Your task to perform on an android device: empty trash in the gmail app Image 0: 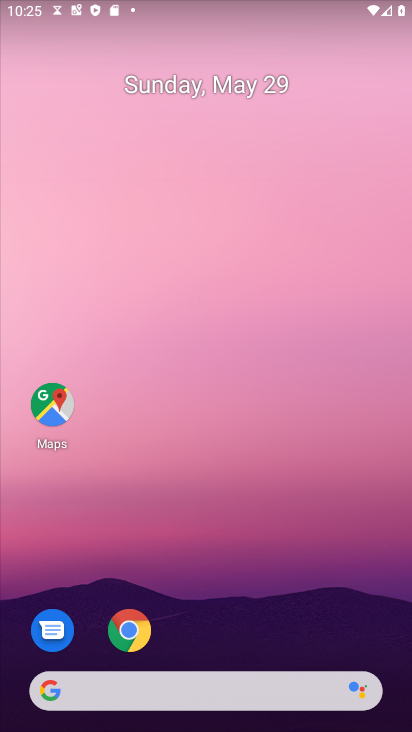
Step 0: drag from (278, 615) to (316, 141)
Your task to perform on an android device: empty trash in the gmail app Image 1: 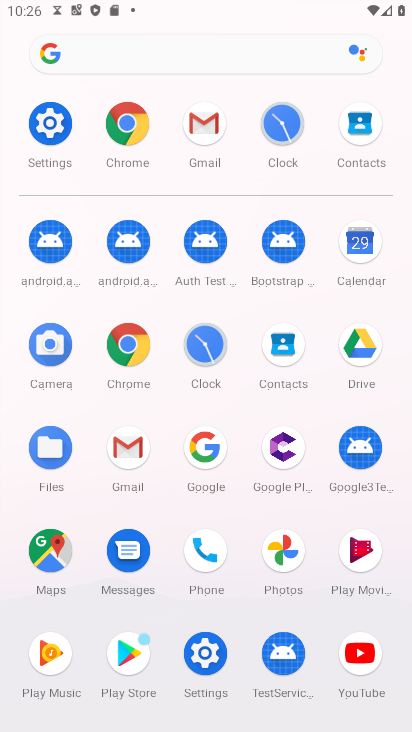
Step 1: click (129, 447)
Your task to perform on an android device: empty trash in the gmail app Image 2: 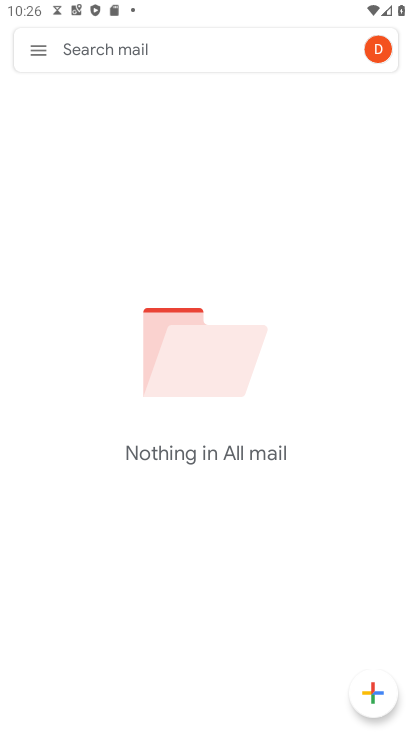
Step 2: click (39, 52)
Your task to perform on an android device: empty trash in the gmail app Image 3: 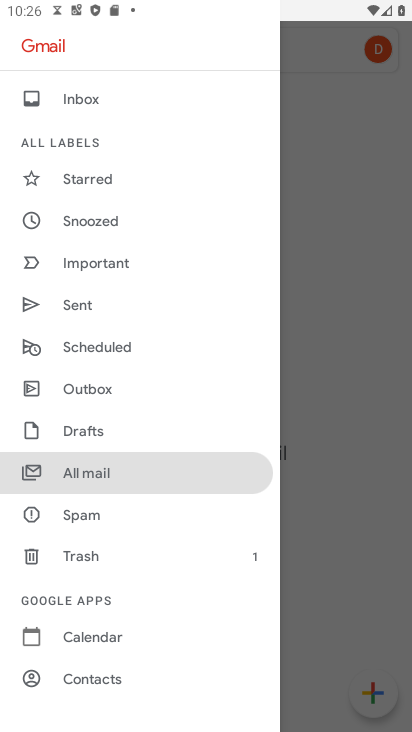
Step 3: click (75, 550)
Your task to perform on an android device: empty trash in the gmail app Image 4: 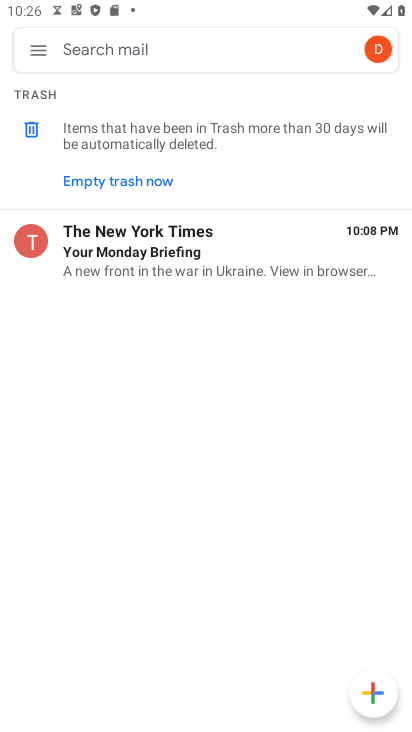
Step 4: click (128, 180)
Your task to perform on an android device: empty trash in the gmail app Image 5: 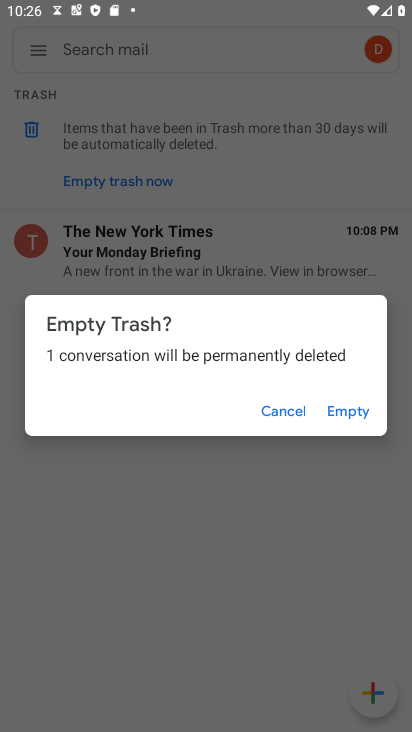
Step 5: click (349, 413)
Your task to perform on an android device: empty trash in the gmail app Image 6: 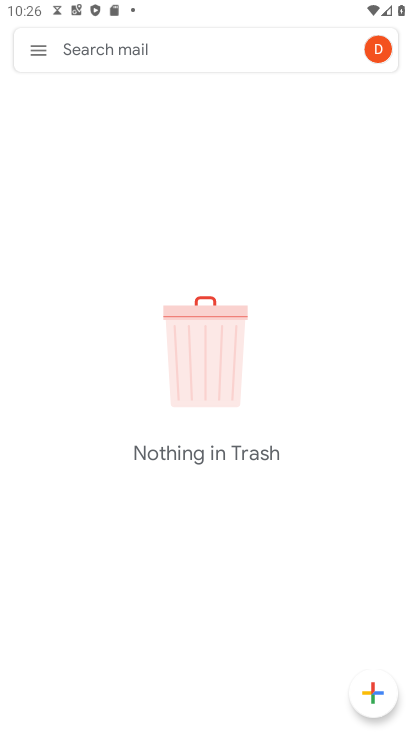
Step 6: task complete